Your task to perform on an android device: turn on location history Image 0: 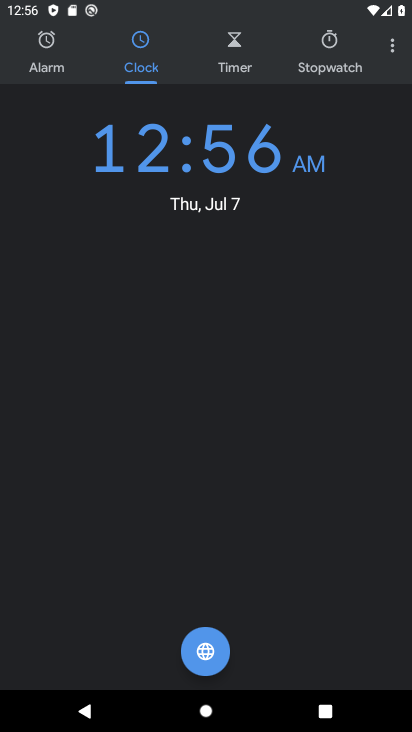
Step 0: press home button
Your task to perform on an android device: turn on location history Image 1: 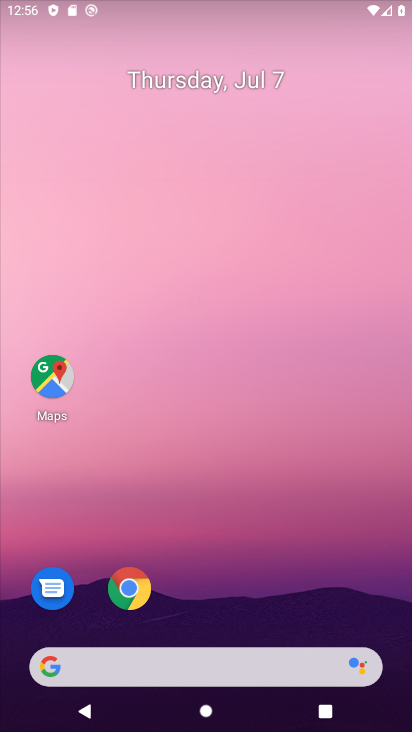
Step 1: drag from (210, 656) to (230, 281)
Your task to perform on an android device: turn on location history Image 2: 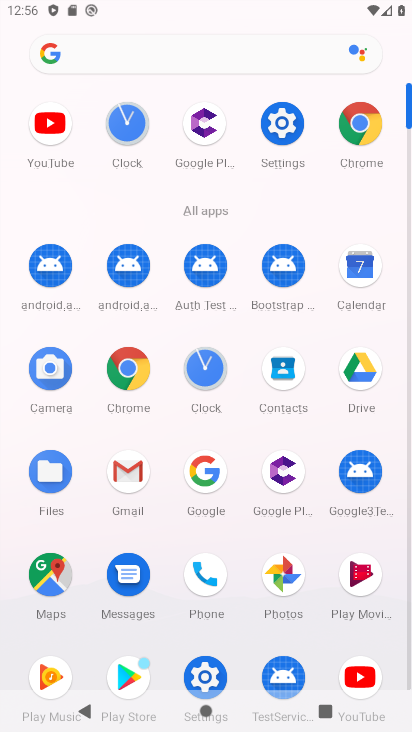
Step 2: click (281, 123)
Your task to perform on an android device: turn on location history Image 3: 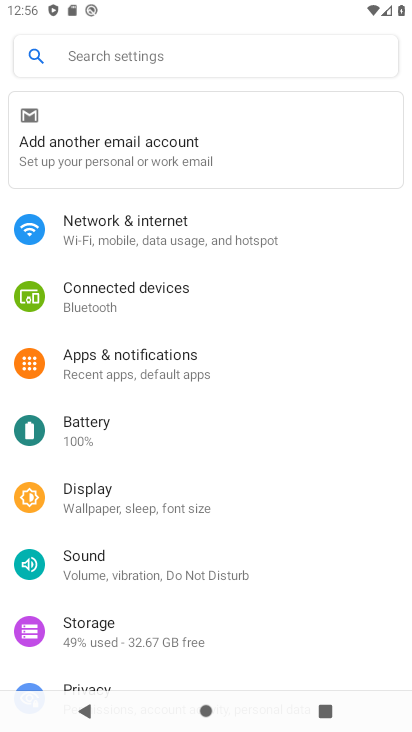
Step 3: drag from (173, 544) to (231, 175)
Your task to perform on an android device: turn on location history Image 4: 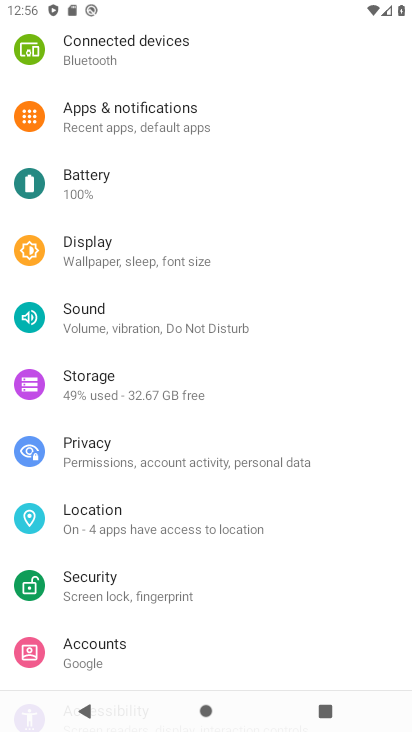
Step 4: click (126, 496)
Your task to perform on an android device: turn on location history Image 5: 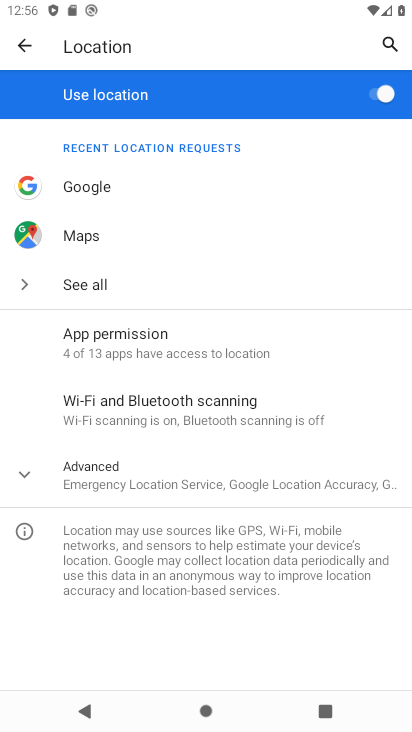
Step 5: click (166, 460)
Your task to perform on an android device: turn on location history Image 6: 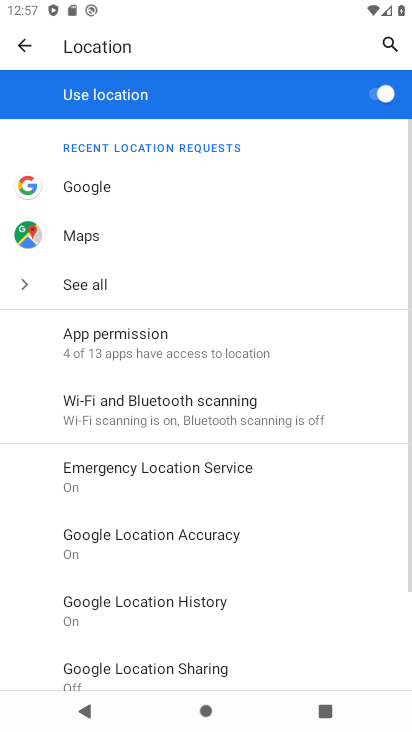
Step 6: click (175, 599)
Your task to perform on an android device: turn on location history Image 7: 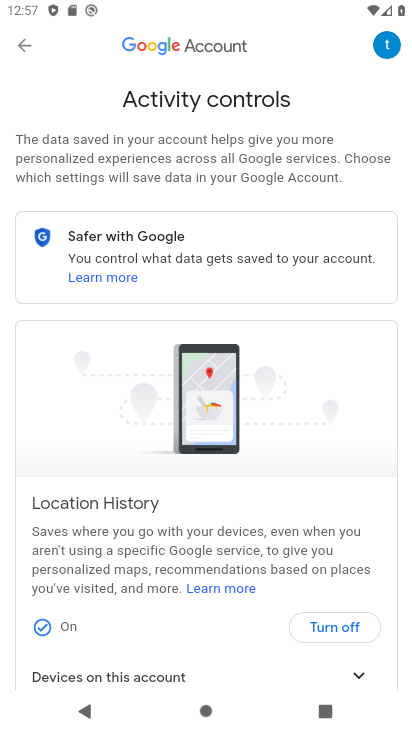
Step 7: click (44, 618)
Your task to perform on an android device: turn on location history Image 8: 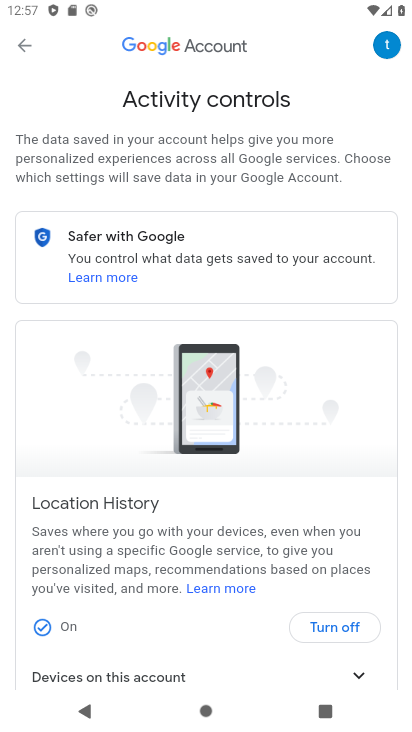
Step 8: task complete